Your task to perform on an android device: Search for Mexican restaurants on Maps Image 0: 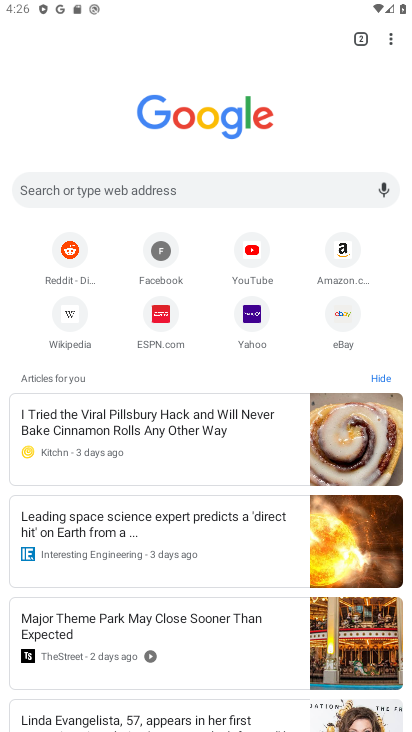
Step 0: press home button
Your task to perform on an android device: Search for Mexican restaurants on Maps Image 1: 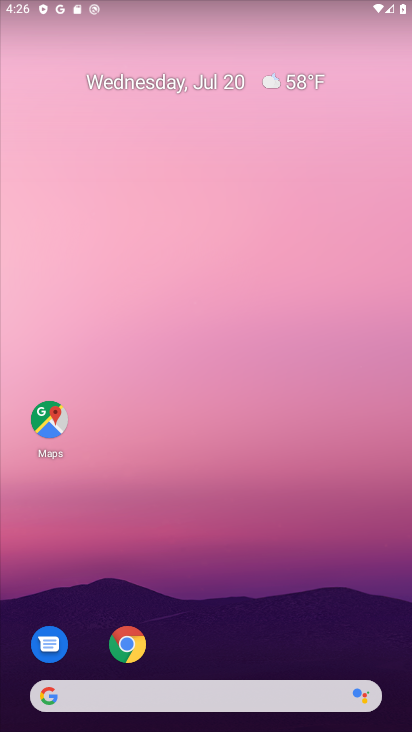
Step 1: click (50, 416)
Your task to perform on an android device: Search for Mexican restaurants on Maps Image 2: 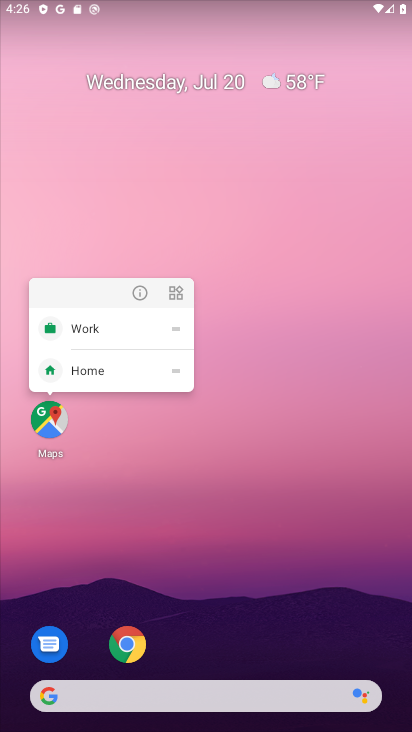
Step 2: click (52, 414)
Your task to perform on an android device: Search for Mexican restaurants on Maps Image 3: 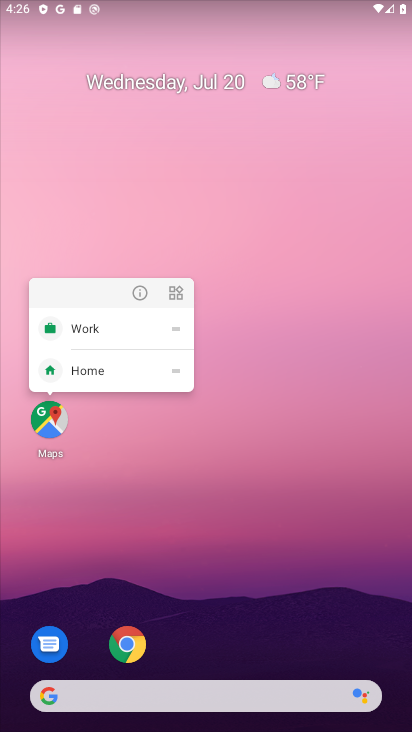
Step 3: drag from (271, 630) to (270, 15)
Your task to perform on an android device: Search for Mexican restaurants on Maps Image 4: 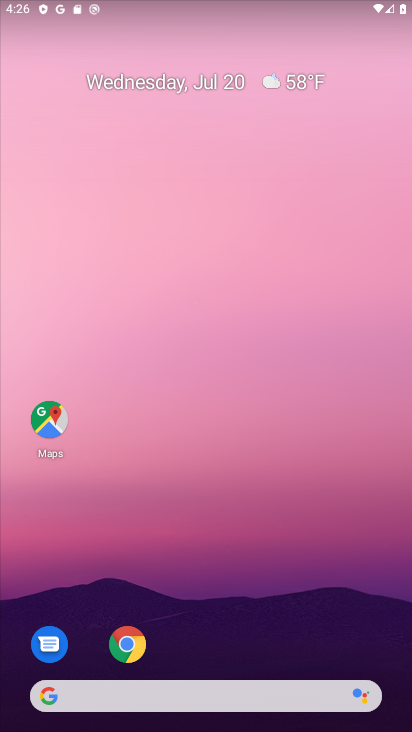
Step 4: drag from (226, 644) to (199, 68)
Your task to perform on an android device: Search for Mexican restaurants on Maps Image 5: 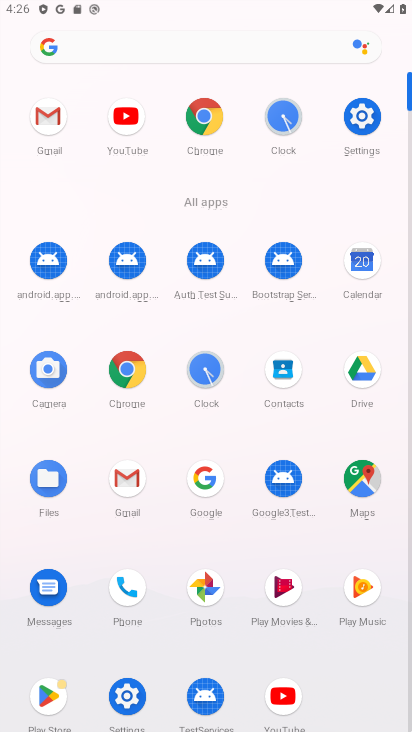
Step 5: click (354, 486)
Your task to perform on an android device: Search for Mexican restaurants on Maps Image 6: 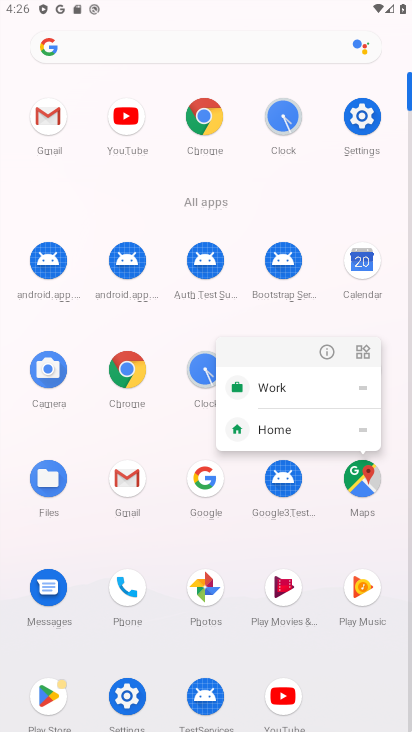
Step 6: click (354, 486)
Your task to perform on an android device: Search for Mexican restaurants on Maps Image 7: 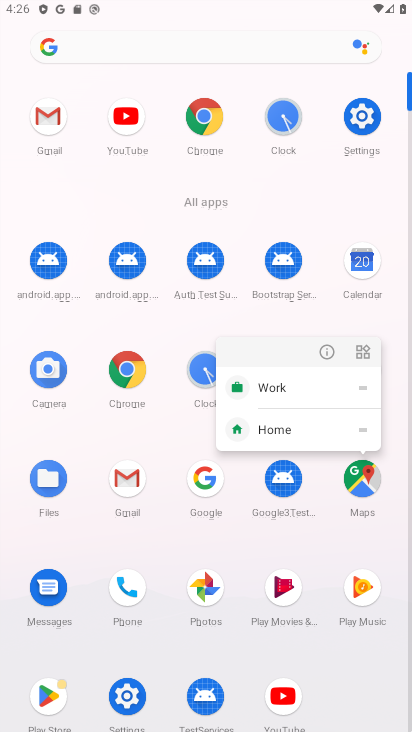
Step 7: click (369, 476)
Your task to perform on an android device: Search for Mexican restaurants on Maps Image 8: 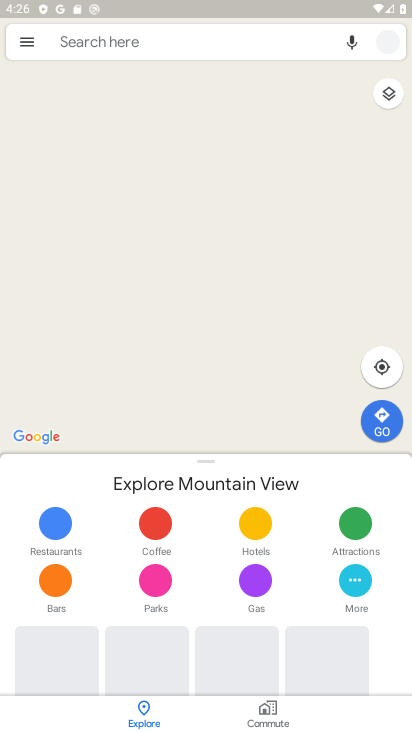
Step 8: click (144, 42)
Your task to perform on an android device: Search for Mexican restaurants on Maps Image 9: 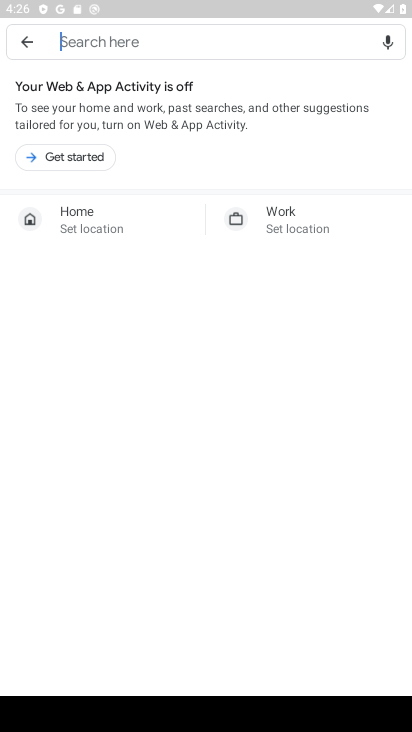
Step 9: click (76, 162)
Your task to perform on an android device: Search for Mexican restaurants on Maps Image 10: 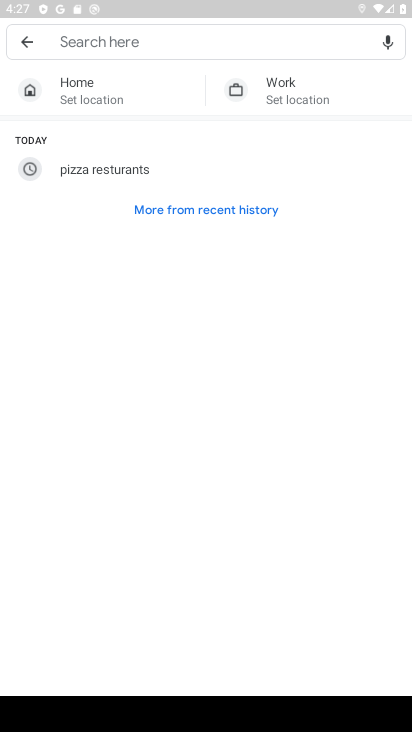
Step 10: type "Mexican restaurants"
Your task to perform on an android device: Search for Mexican restaurants on Maps Image 11: 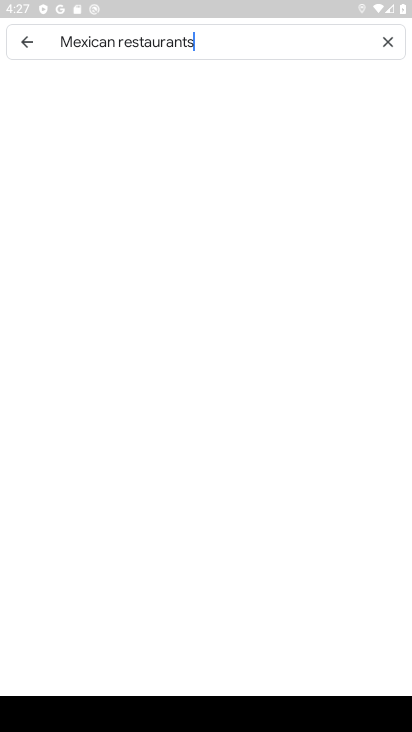
Step 11: press enter
Your task to perform on an android device: Search for Mexican restaurants on Maps Image 12: 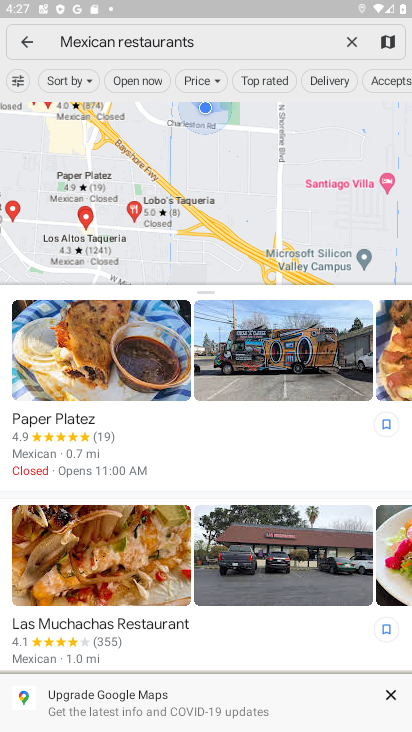
Step 12: task complete